Your task to perform on an android device: Go to internet settings Image 0: 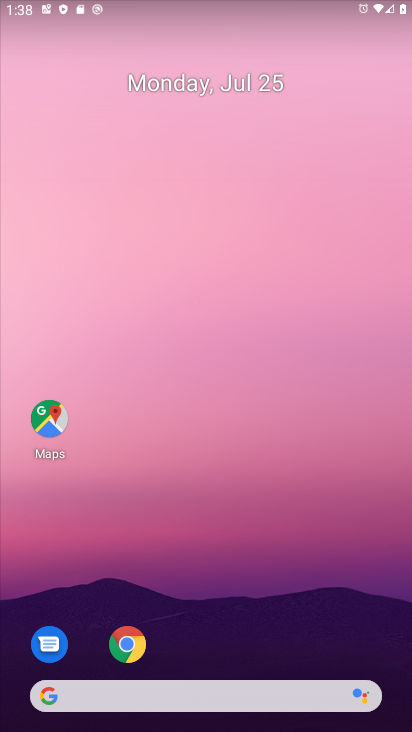
Step 0: drag from (381, 635) to (173, 4)
Your task to perform on an android device: Go to internet settings Image 1: 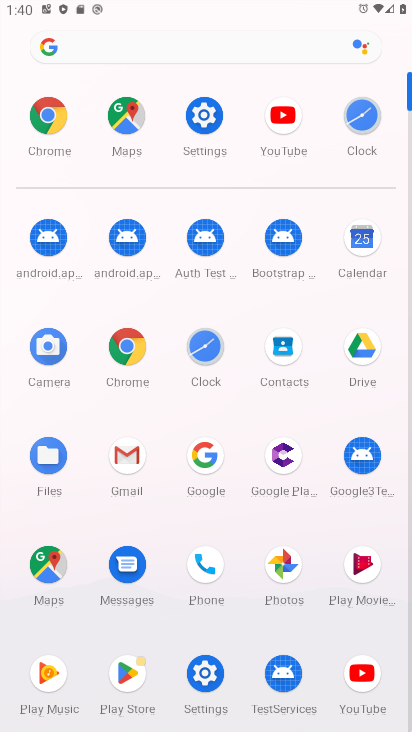
Step 1: click (214, 684)
Your task to perform on an android device: Go to internet settings Image 2: 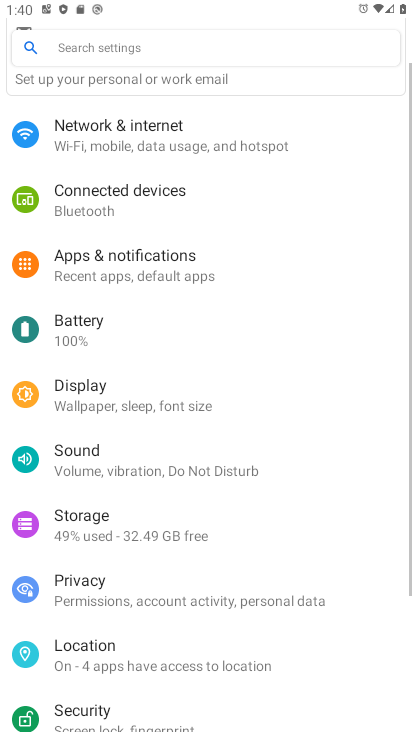
Step 2: drag from (144, 143) to (181, 649)
Your task to perform on an android device: Go to internet settings Image 3: 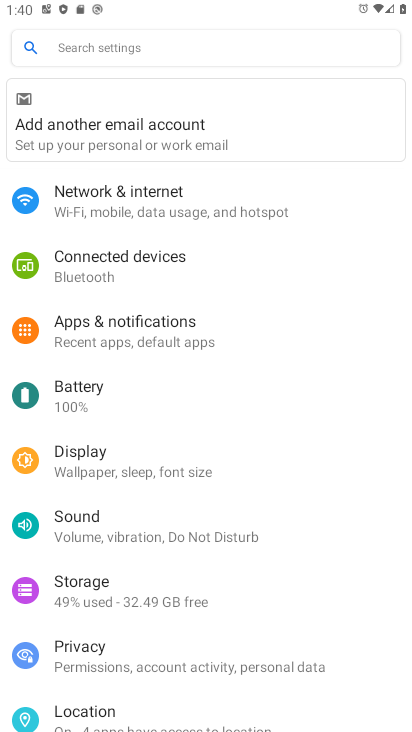
Step 3: click (169, 205)
Your task to perform on an android device: Go to internet settings Image 4: 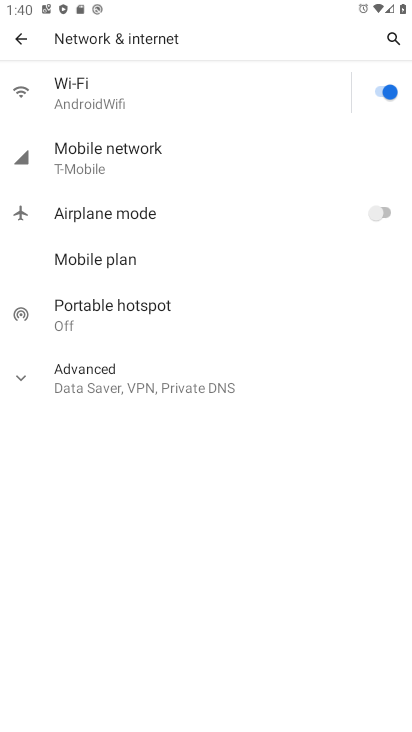
Step 4: task complete